Your task to perform on an android device: change the upload size in google photos Image 0: 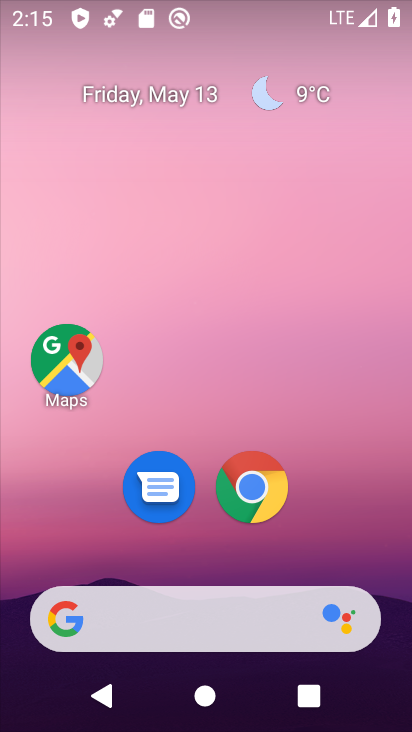
Step 0: drag from (201, 525) to (214, 112)
Your task to perform on an android device: change the upload size in google photos Image 1: 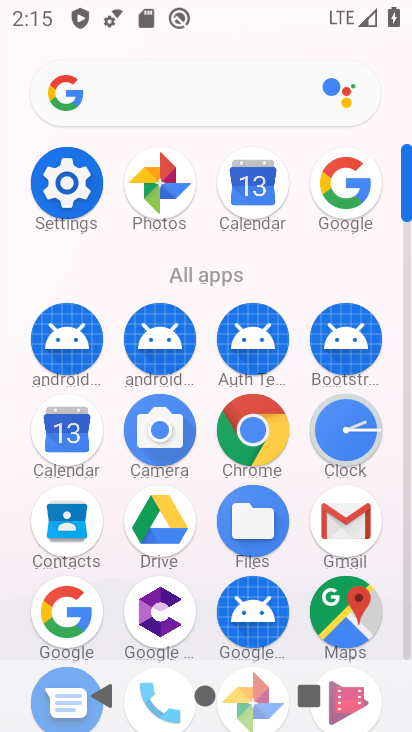
Step 1: click (152, 183)
Your task to perform on an android device: change the upload size in google photos Image 2: 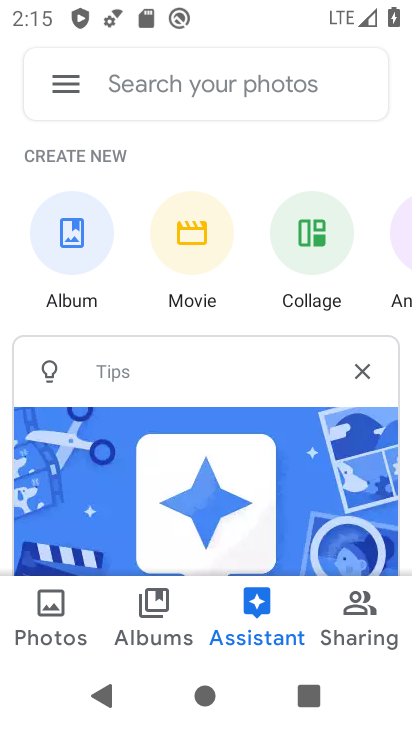
Step 2: click (67, 77)
Your task to perform on an android device: change the upload size in google photos Image 3: 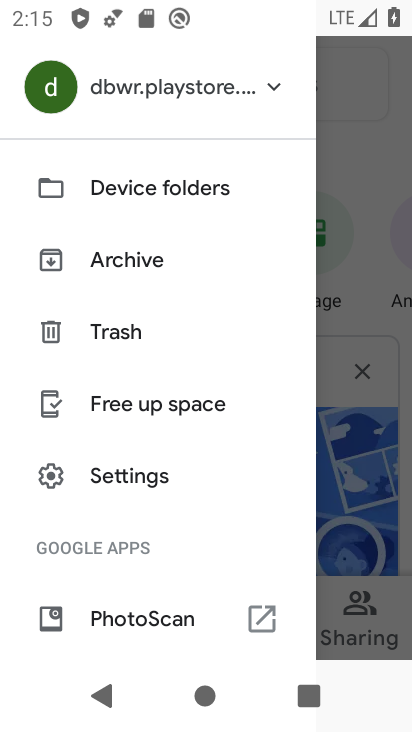
Step 3: click (127, 467)
Your task to perform on an android device: change the upload size in google photos Image 4: 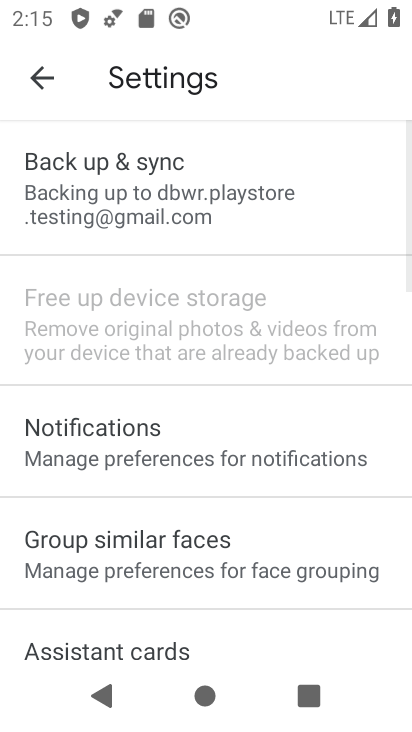
Step 4: click (163, 199)
Your task to perform on an android device: change the upload size in google photos Image 5: 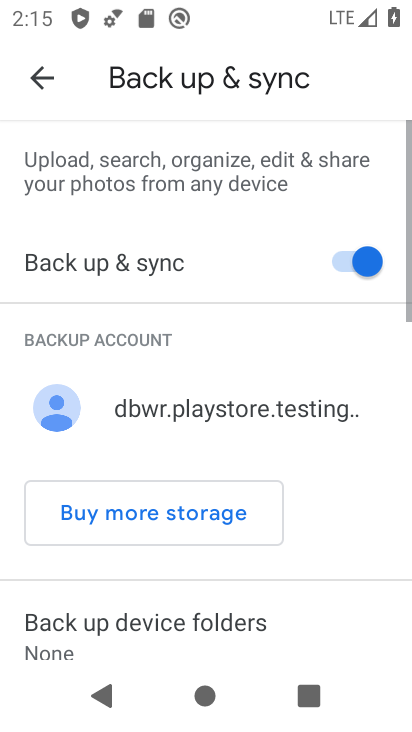
Step 5: drag from (215, 538) to (197, 229)
Your task to perform on an android device: change the upload size in google photos Image 6: 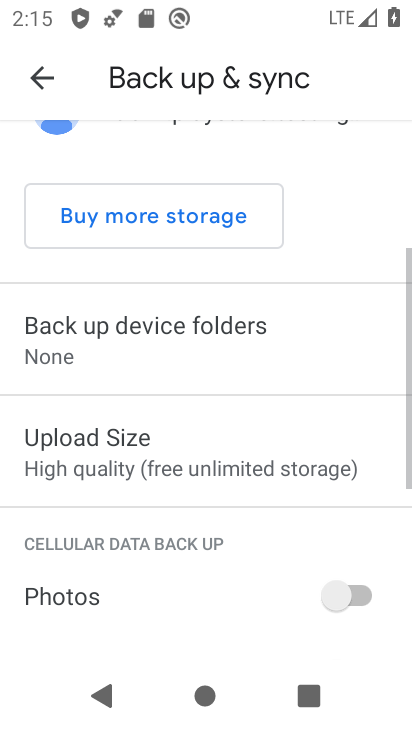
Step 6: click (153, 443)
Your task to perform on an android device: change the upload size in google photos Image 7: 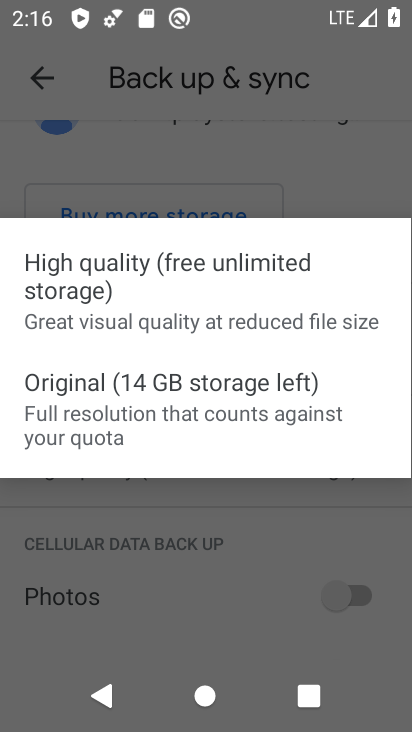
Step 7: click (157, 391)
Your task to perform on an android device: change the upload size in google photos Image 8: 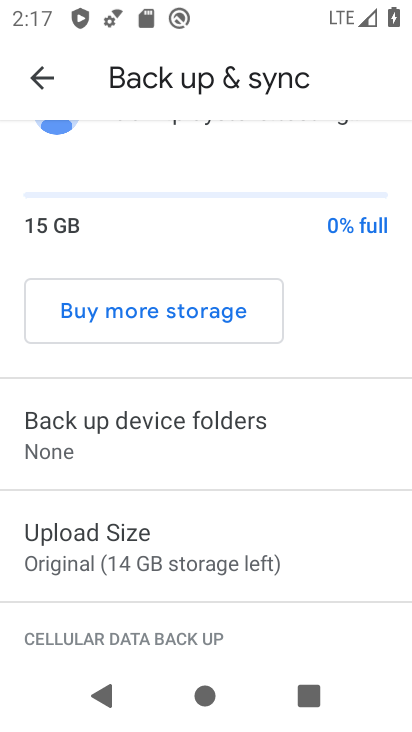
Step 8: task complete